Your task to perform on an android device: Go to accessibility settings Image 0: 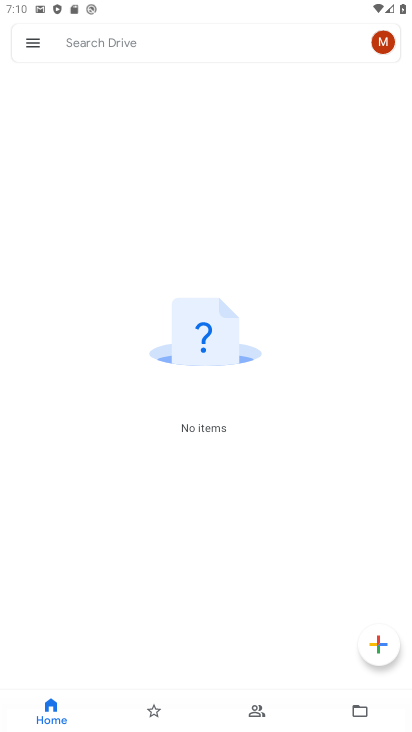
Step 0: press home button
Your task to perform on an android device: Go to accessibility settings Image 1: 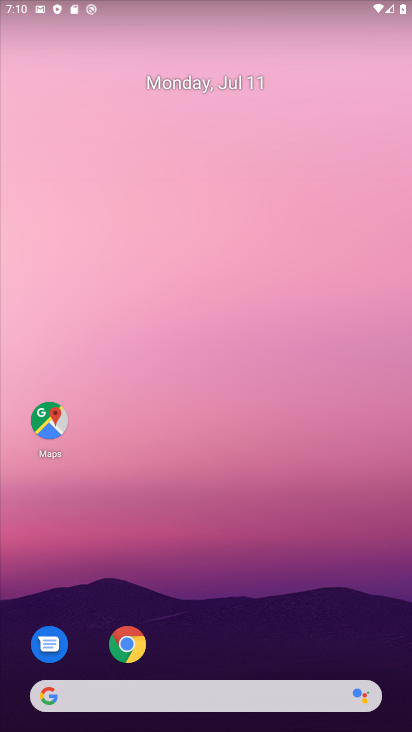
Step 1: drag from (207, 545) to (136, 145)
Your task to perform on an android device: Go to accessibility settings Image 2: 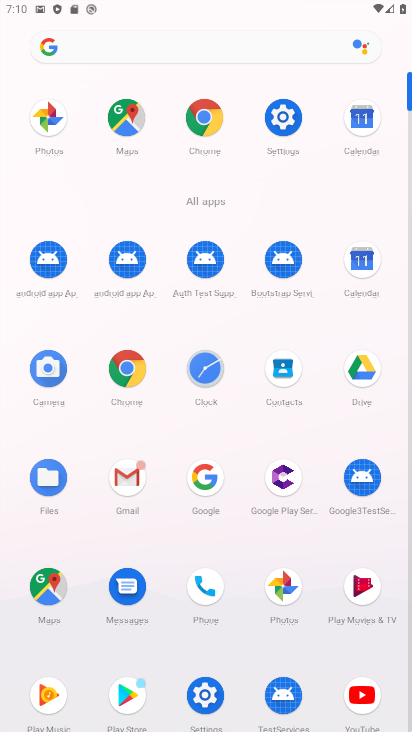
Step 2: click (282, 113)
Your task to perform on an android device: Go to accessibility settings Image 3: 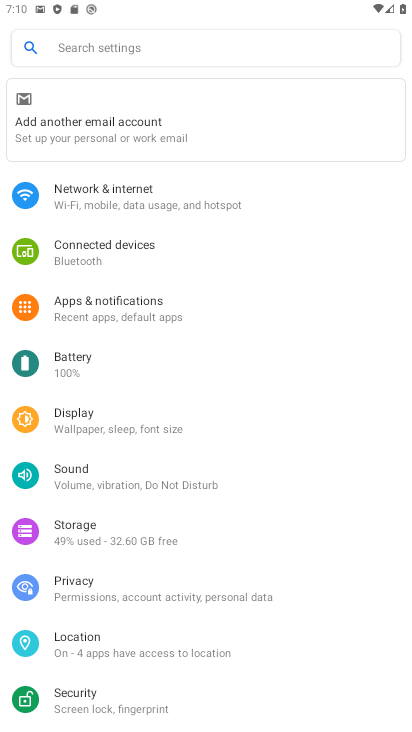
Step 3: drag from (280, 683) to (216, 278)
Your task to perform on an android device: Go to accessibility settings Image 4: 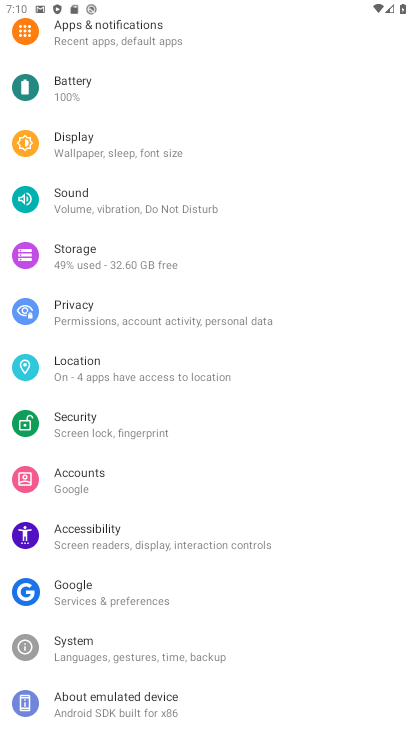
Step 4: click (85, 528)
Your task to perform on an android device: Go to accessibility settings Image 5: 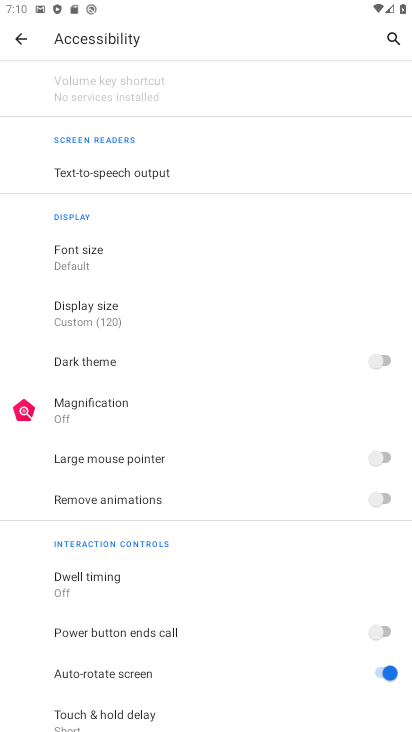
Step 5: task complete